Your task to perform on an android device: toggle show notifications on the lock screen Image 0: 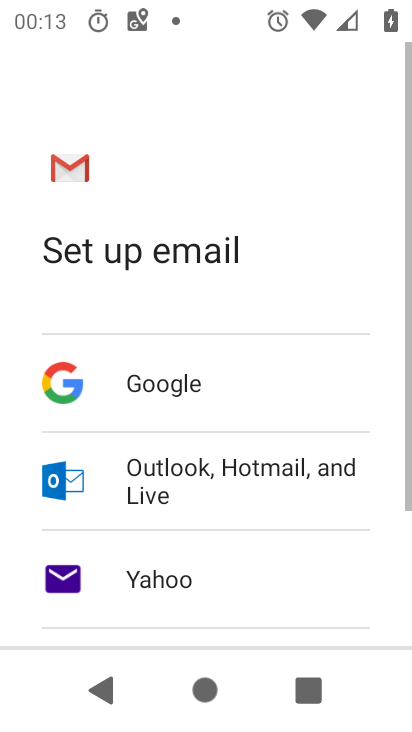
Step 0: press home button
Your task to perform on an android device: toggle show notifications on the lock screen Image 1: 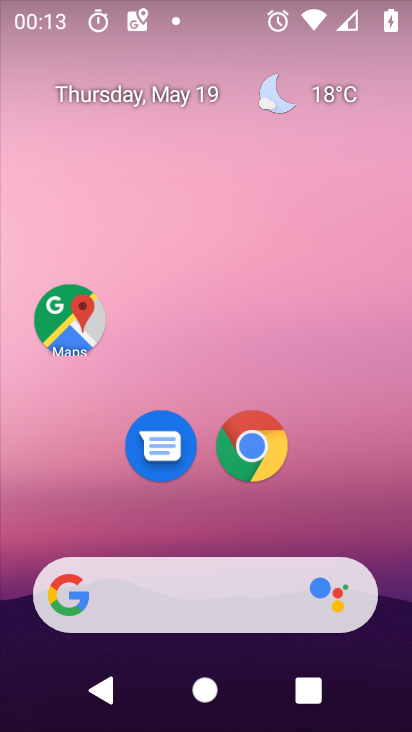
Step 1: drag from (170, 609) to (267, 221)
Your task to perform on an android device: toggle show notifications on the lock screen Image 2: 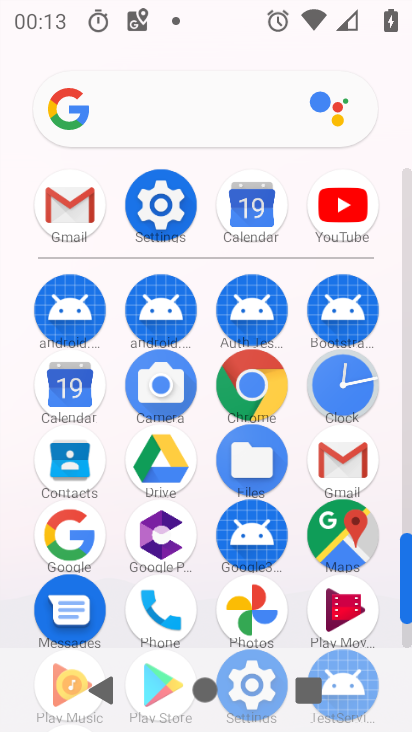
Step 2: click (167, 226)
Your task to perform on an android device: toggle show notifications on the lock screen Image 3: 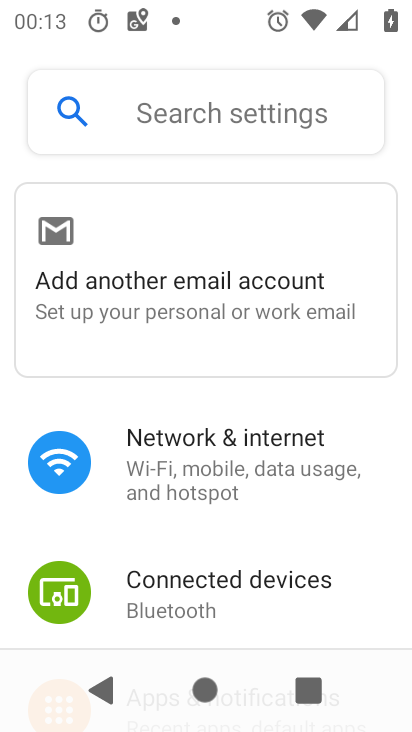
Step 3: drag from (251, 580) to (330, 191)
Your task to perform on an android device: toggle show notifications on the lock screen Image 4: 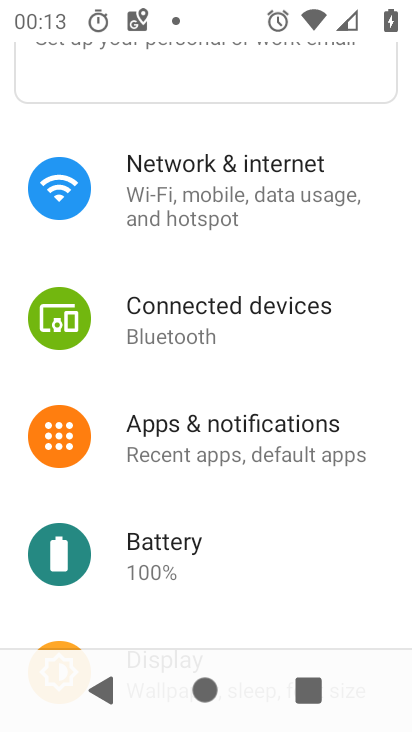
Step 4: click (267, 430)
Your task to perform on an android device: toggle show notifications on the lock screen Image 5: 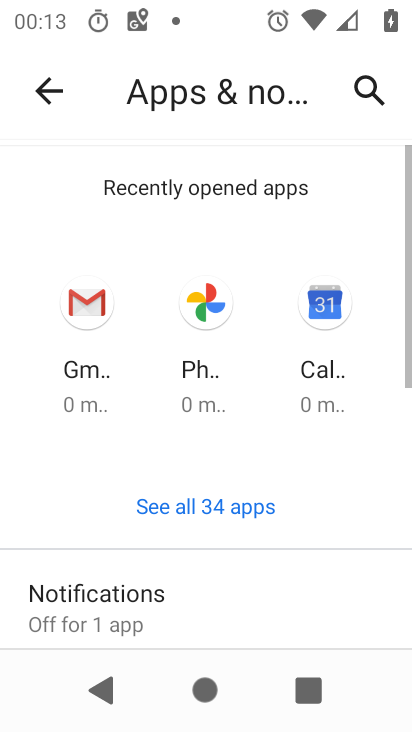
Step 5: click (137, 594)
Your task to perform on an android device: toggle show notifications on the lock screen Image 6: 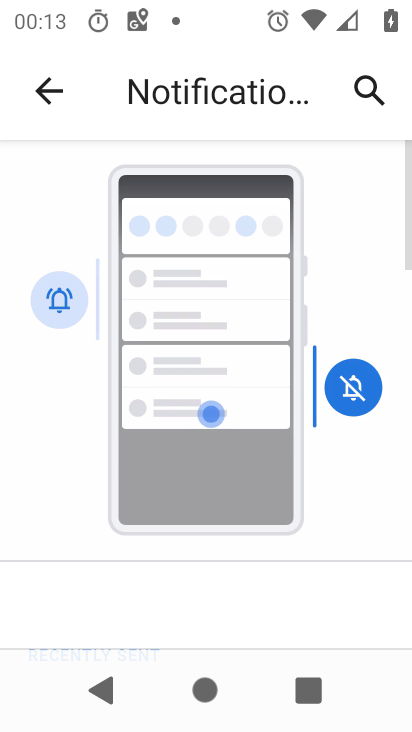
Step 6: drag from (207, 591) to (318, 50)
Your task to perform on an android device: toggle show notifications on the lock screen Image 7: 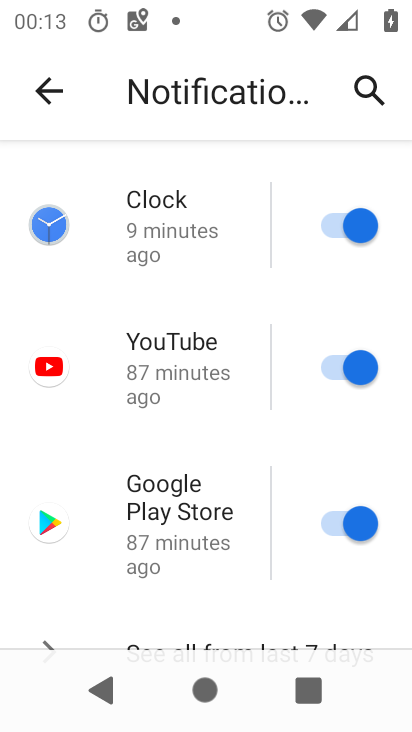
Step 7: drag from (233, 600) to (325, 163)
Your task to perform on an android device: toggle show notifications on the lock screen Image 8: 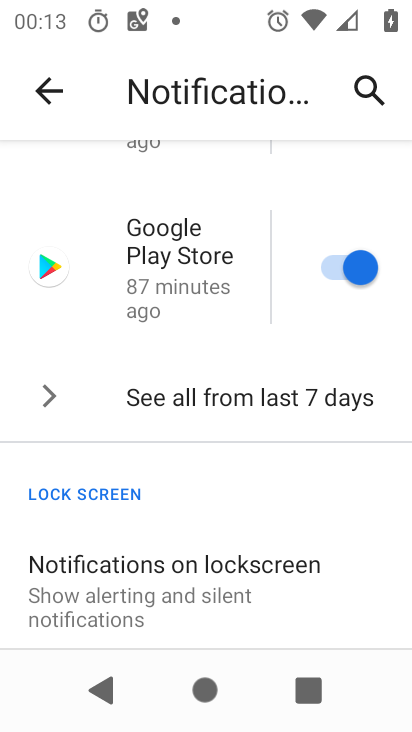
Step 8: click (263, 582)
Your task to perform on an android device: toggle show notifications on the lock screen Image 9: 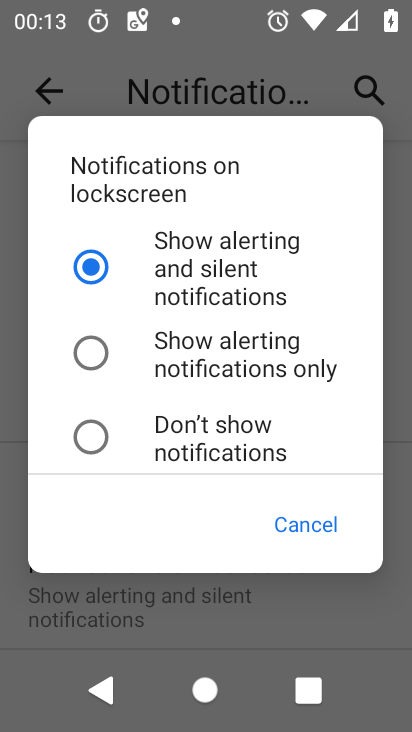
Step 9: click (73, 431)
Your task to perform on an android device: toggle show notifications on the lock screen Image 10: 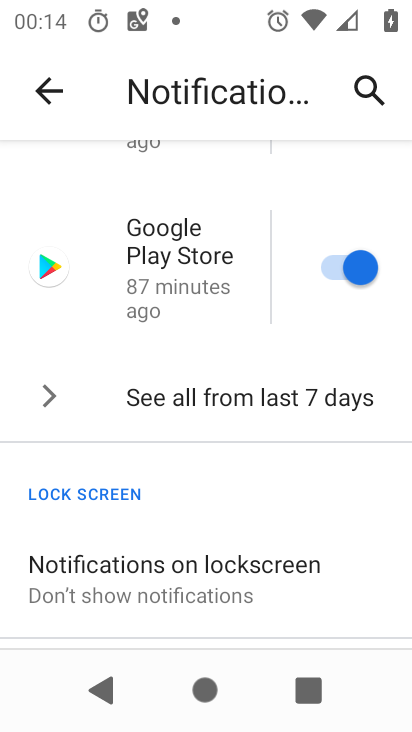
Step 10: task complete